Your task to perform on an android device: What's the weather going to be tomorrow? Image 0: 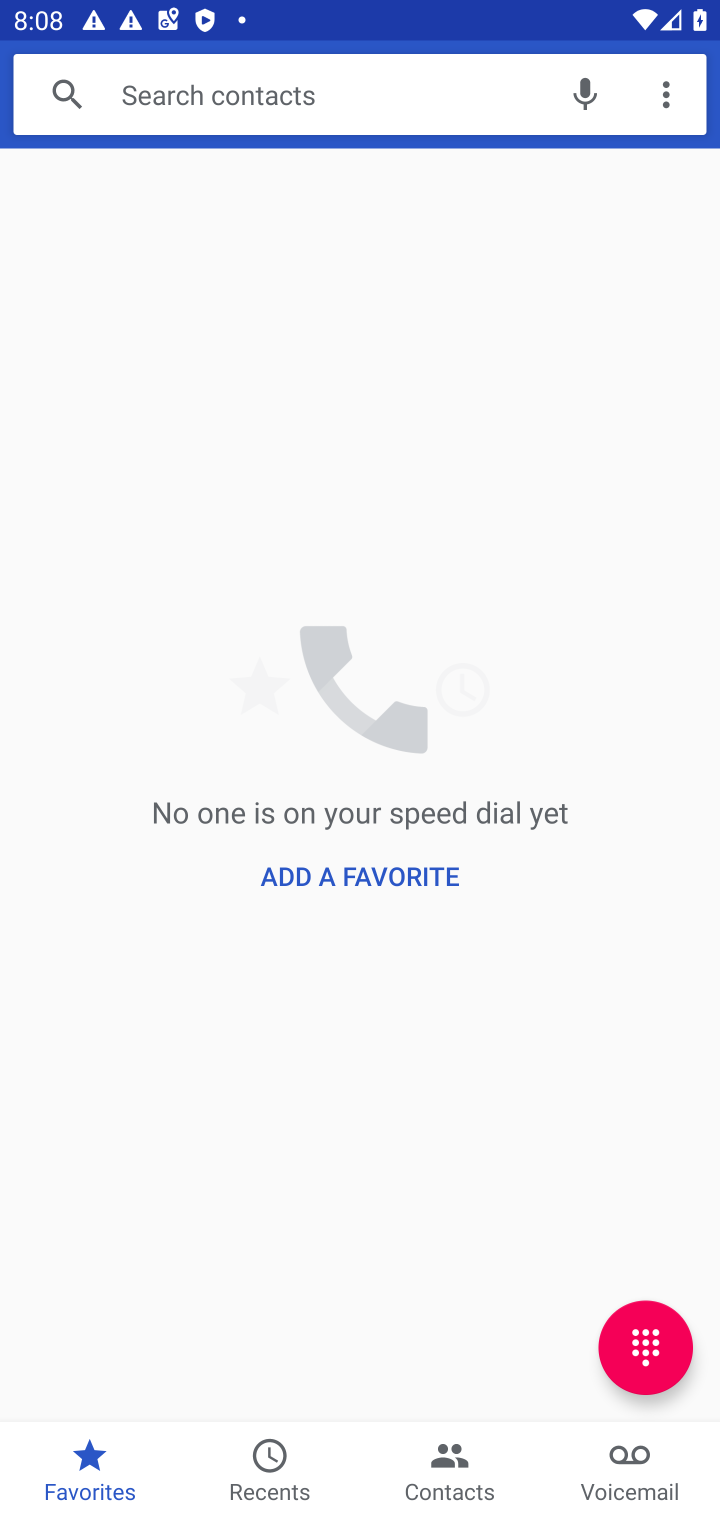
Step 0: press back button
Your task to perform on an android device: What's the weather going to be tomorrow? Image 1: 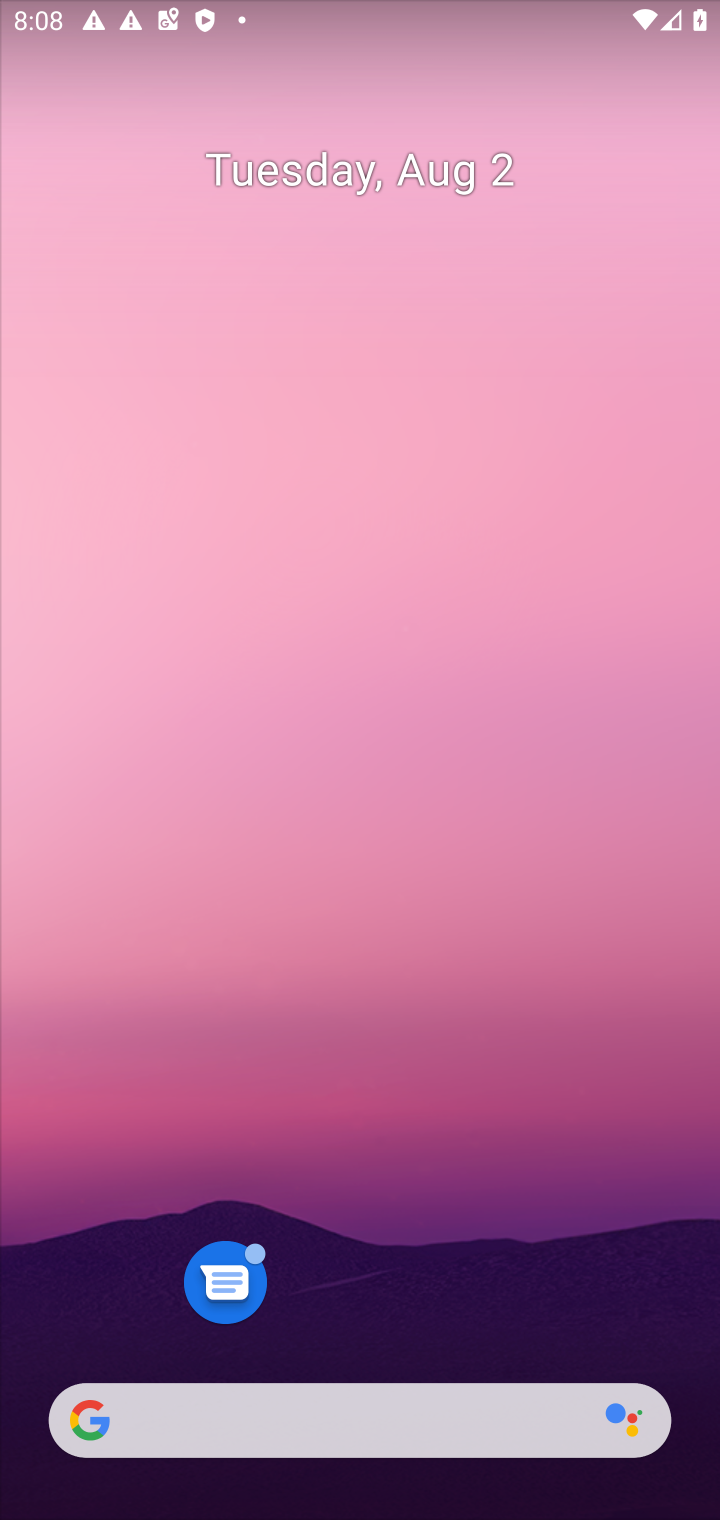
Step 1: click (378, 1433)
Your task to perform on an android device: What's the weather going to be tomorrow? Image 2: 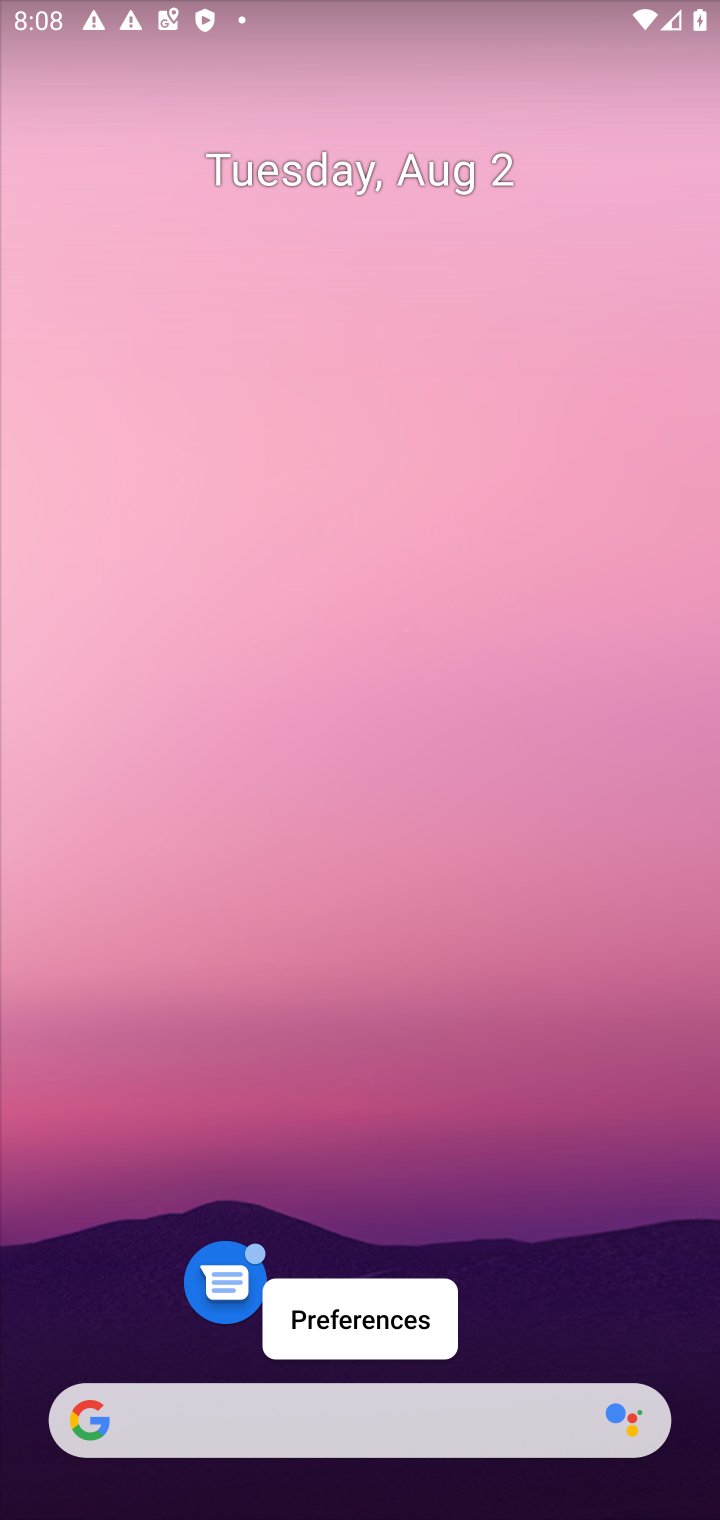
Step 2: click (306, 1422)
Your task to perform on an android device: What's the weather going to be tomorrow? Image 3: 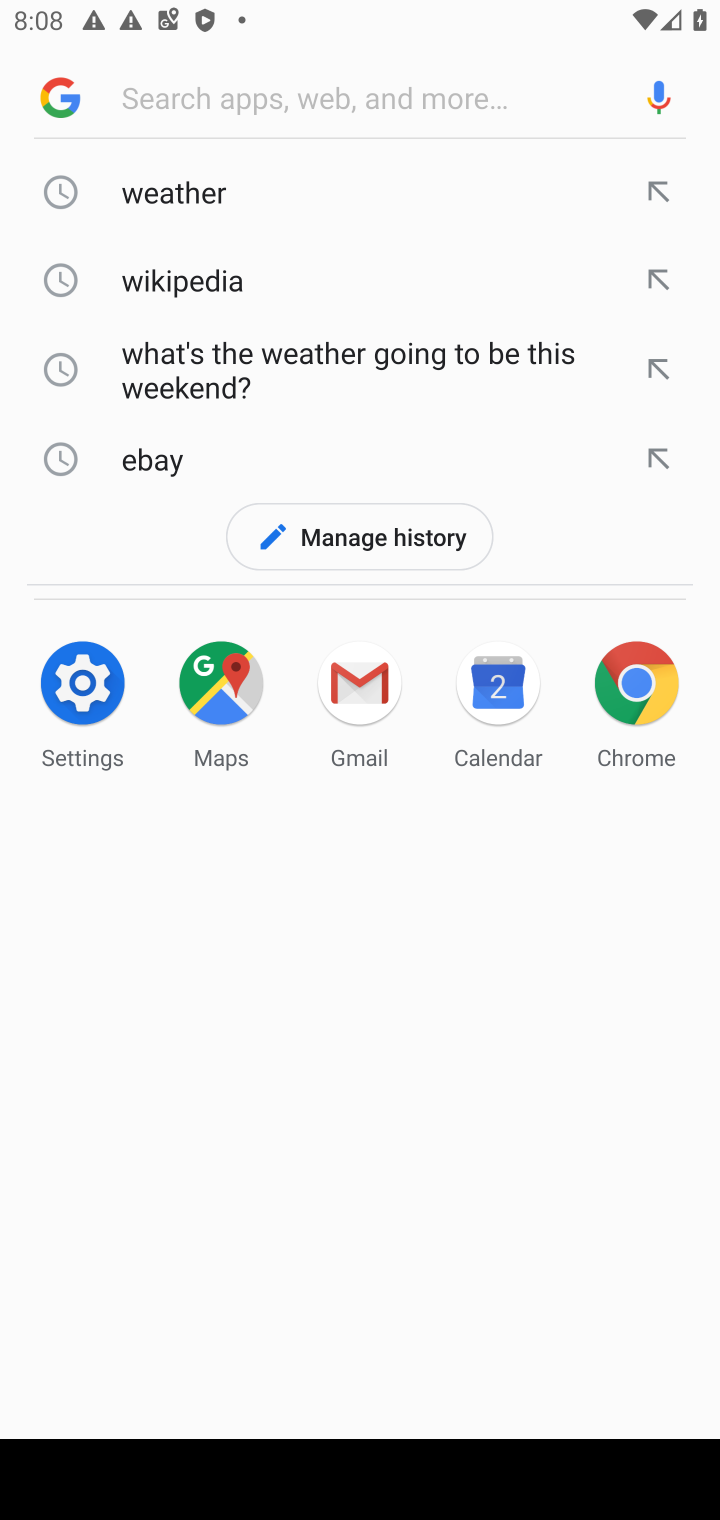
Step 3: click (179, 188)
Your task to perform on an android device: What's the weather going to be tomorrow? Image 4: 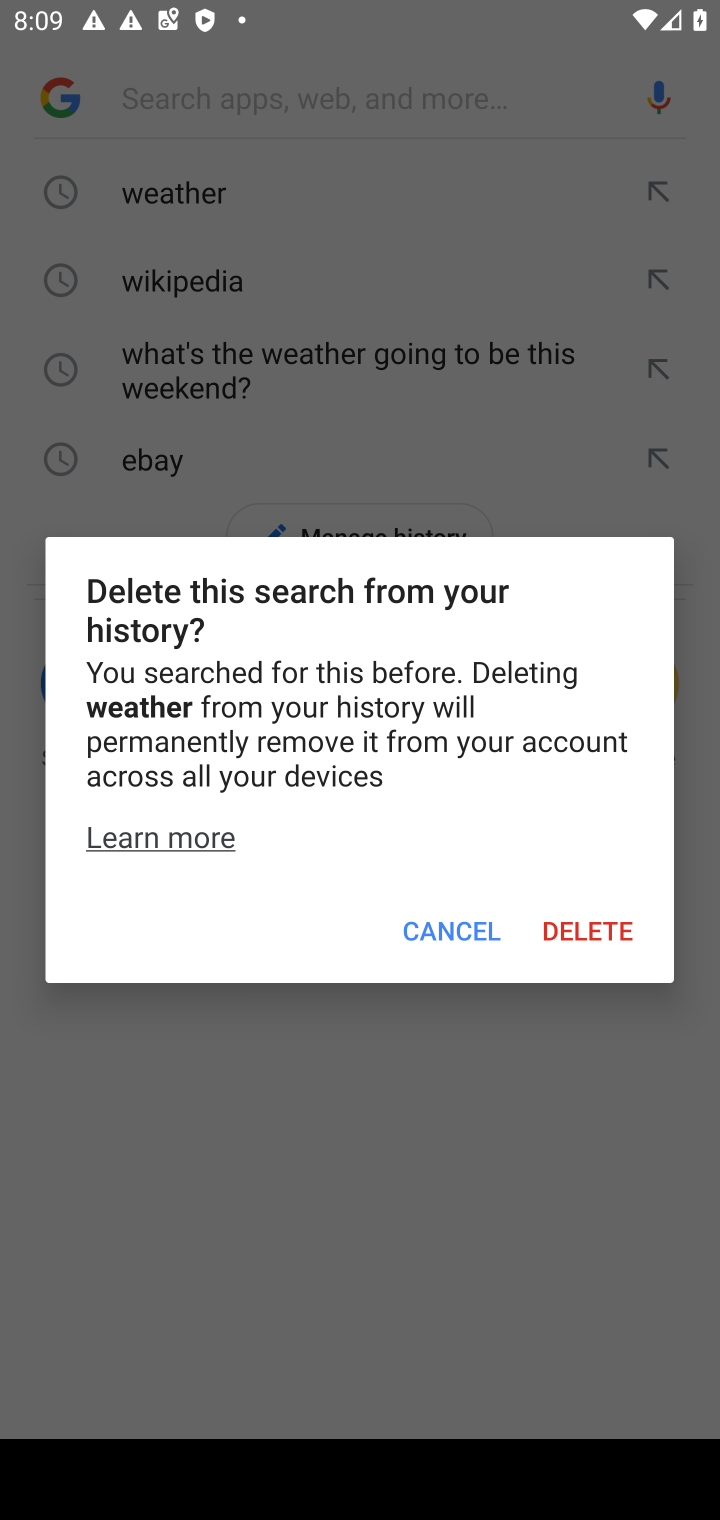
Step 4: click (460, 929)
Your task to perform on an android device: What's the weather going to be tomorrow? Image 5: 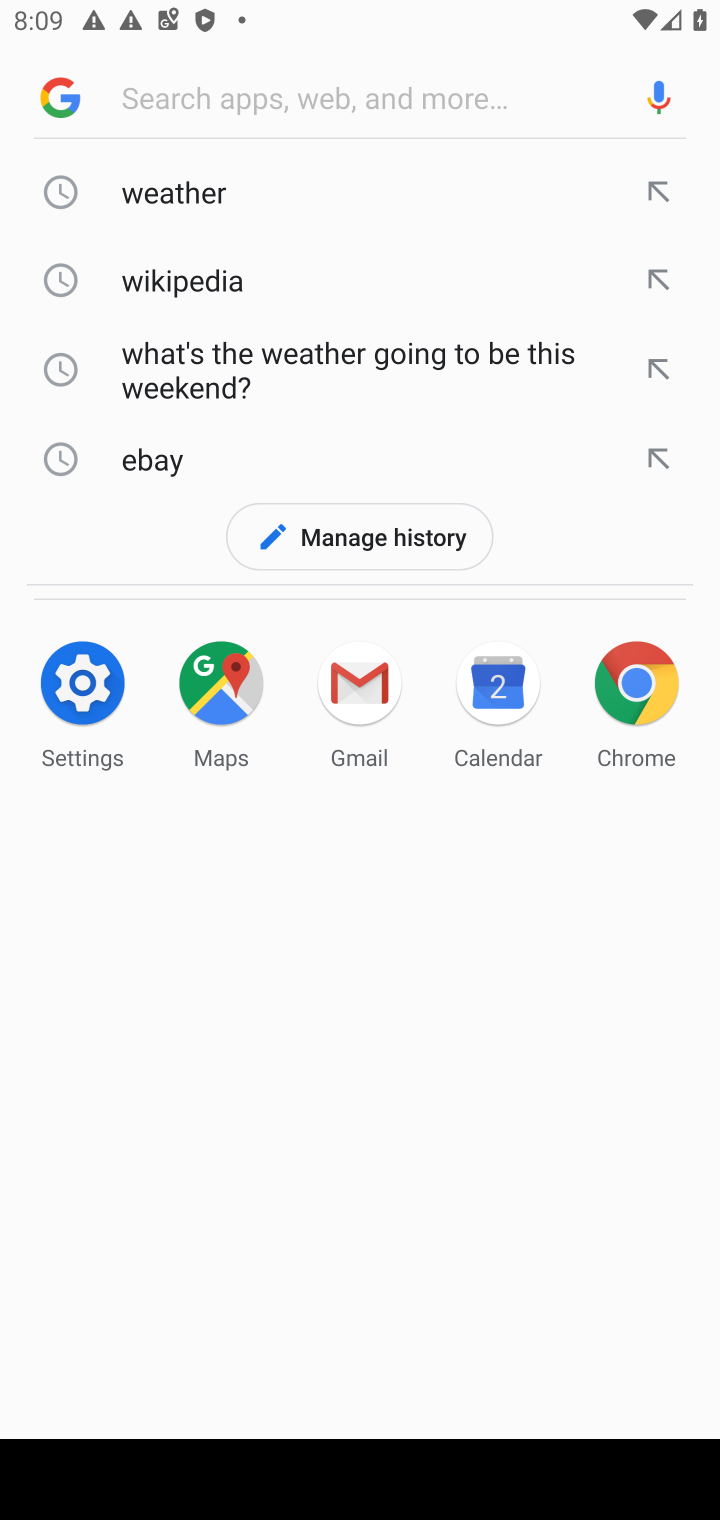
Step 5: click (177, 178)
Your task to perform on an android device: What's the weather going to be tomorrow? Image 6: 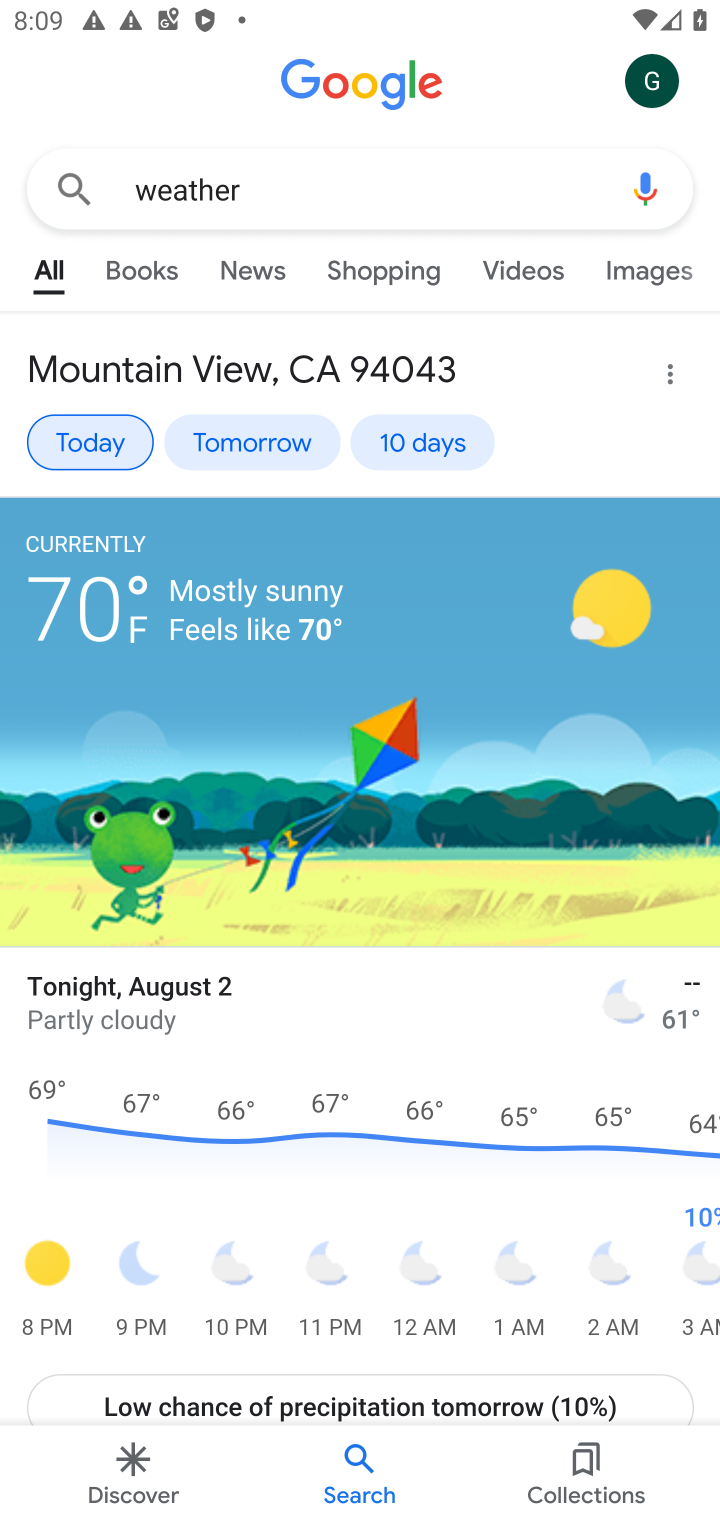
Step 6: click (269, 439)
Your task to perform on an android device: What's the weather going to be tomorrow? Image 7: 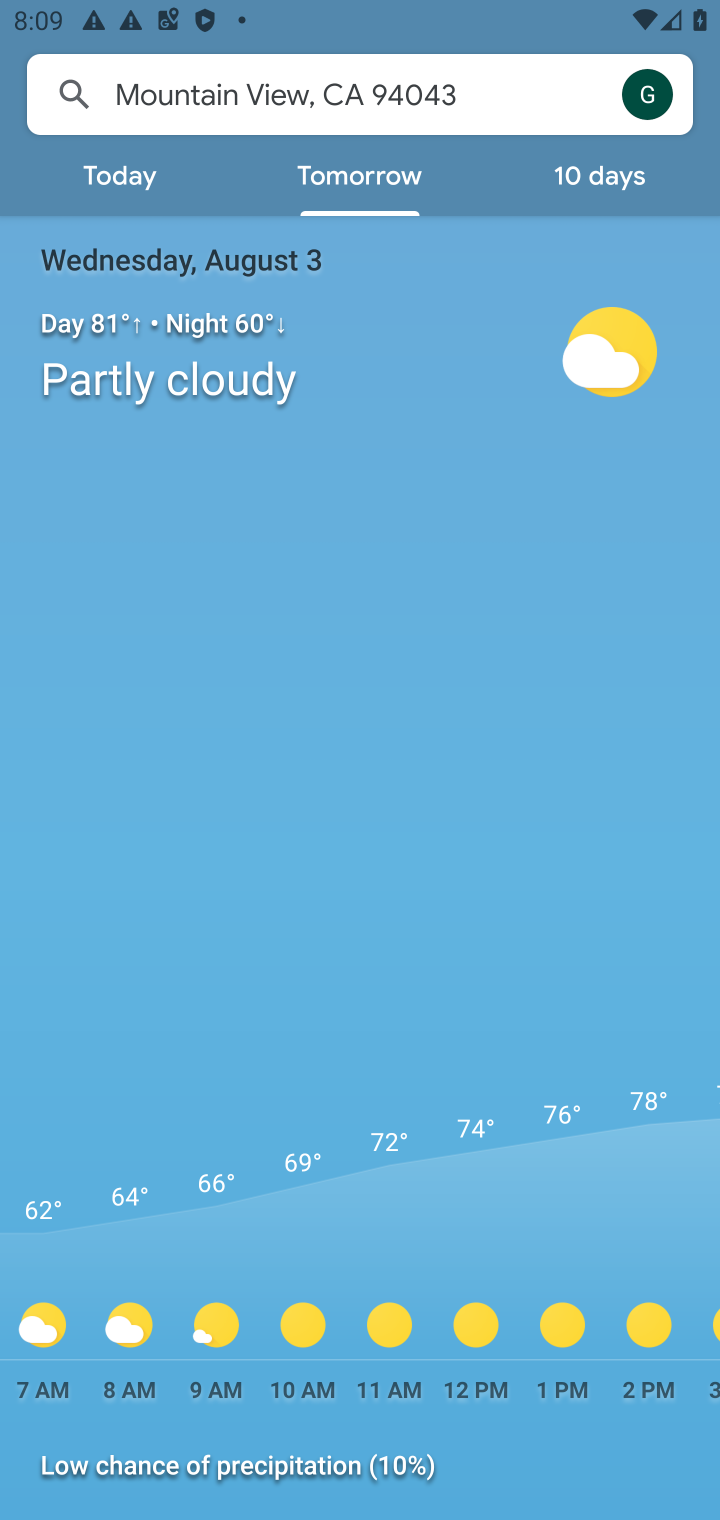
Step 7: task complete